Your task to perform on an android device: Show the shopping cart on walmart.com. Search for "macbook pro 13 inch" on walmart.com, select the first entry, and add it to the cart. Image 0: 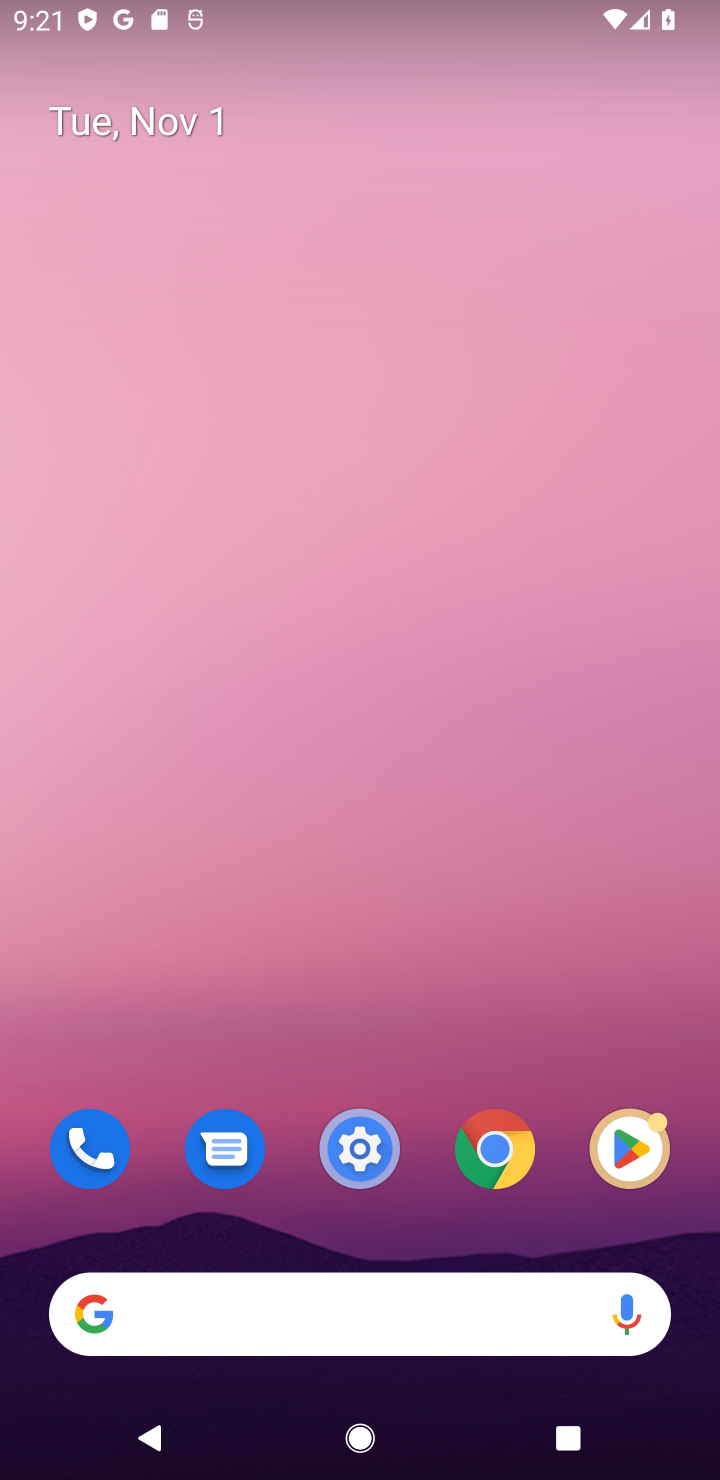
Step 0: press home button
Your task to perform on an android device: Show the shopping cart on walmart.com. Search for "macbook pro 13 inch" on walmart.com, select the first entry, and add it to the cart. Image 1: 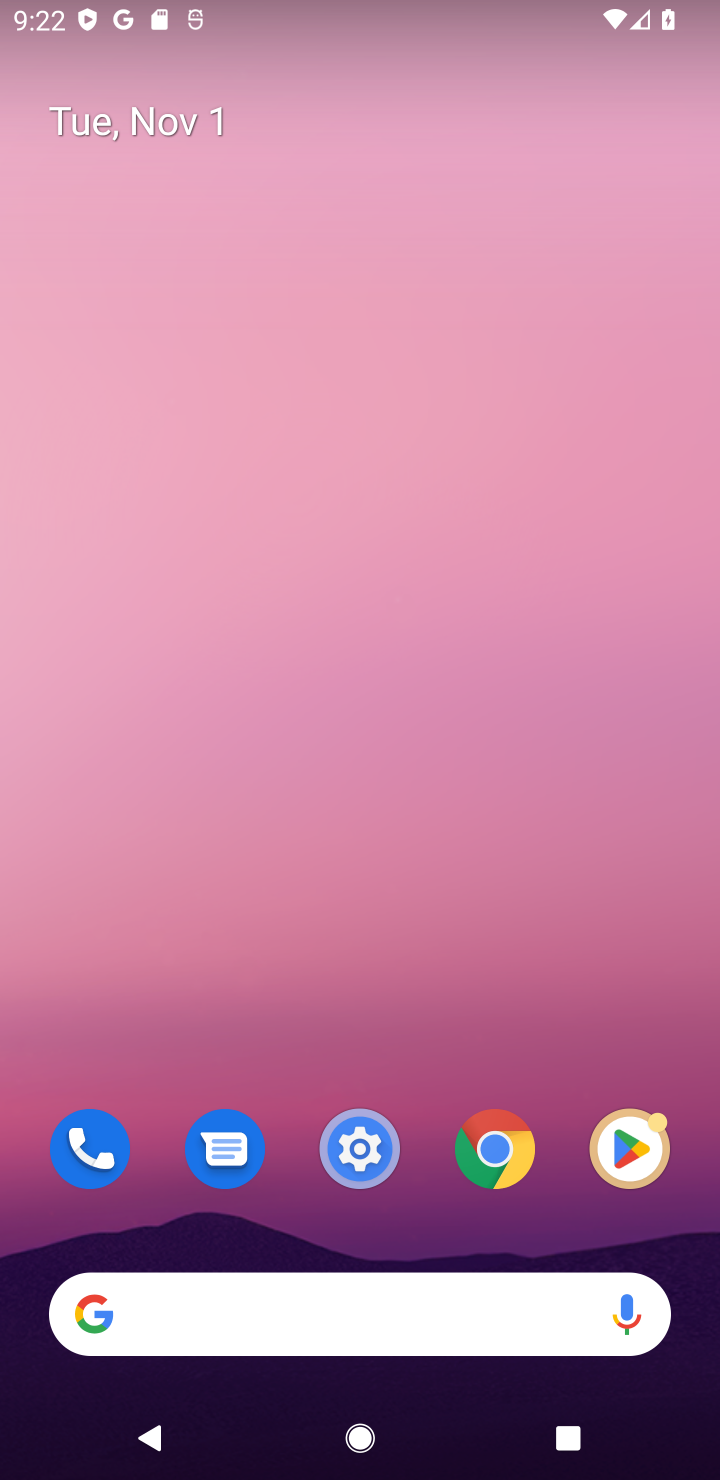
Step 1: click (130, 1314)
Your task to perform on an android device: Show the shopping cart on walmart.com. Search for "macbook pro 13 inch" on walmart.com, select the first entry, and add it to the cart. Image 2: 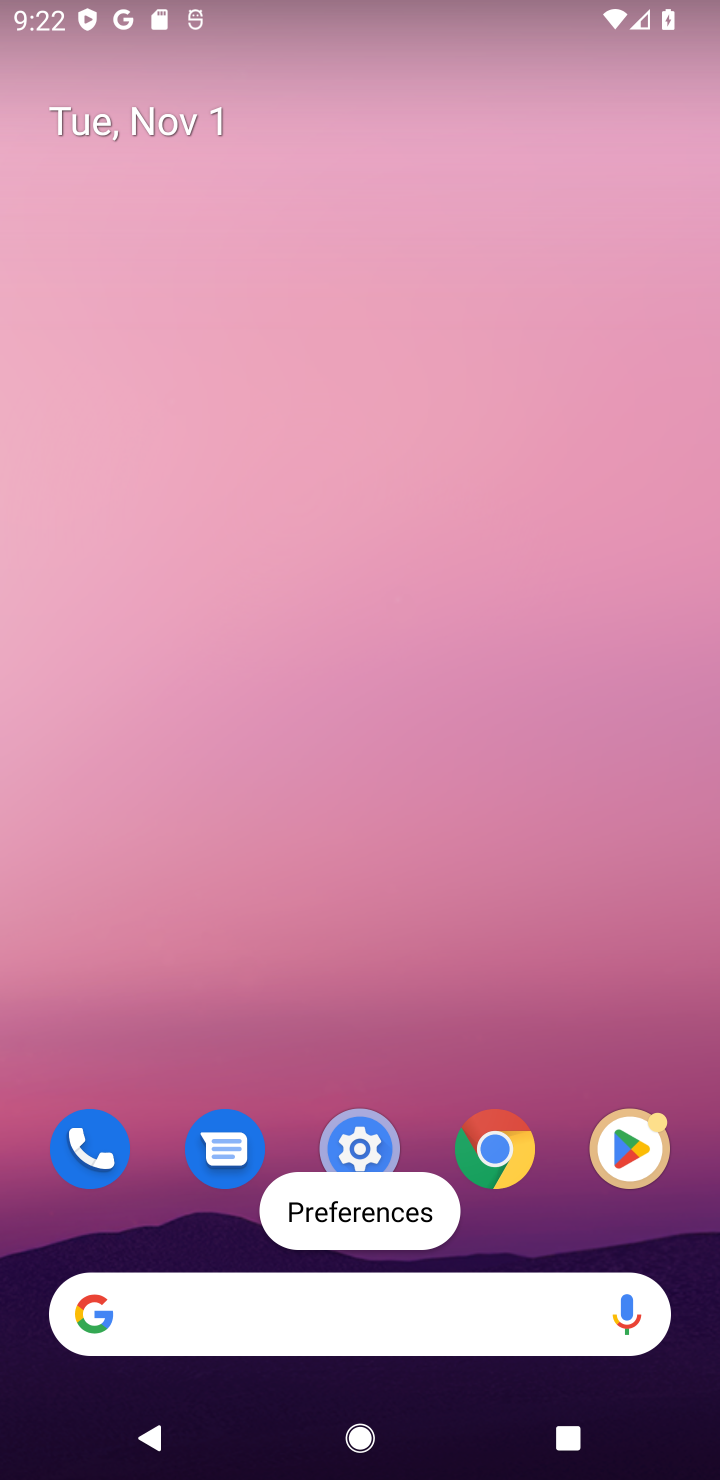
Step 2: click (130, 1314)
Your task to perform on an android device: Show the shopping cart on walmart.com. Search for "macbook pro 13 inch" on walmart.com, select the first entry, and add it to the cart. Image 3: 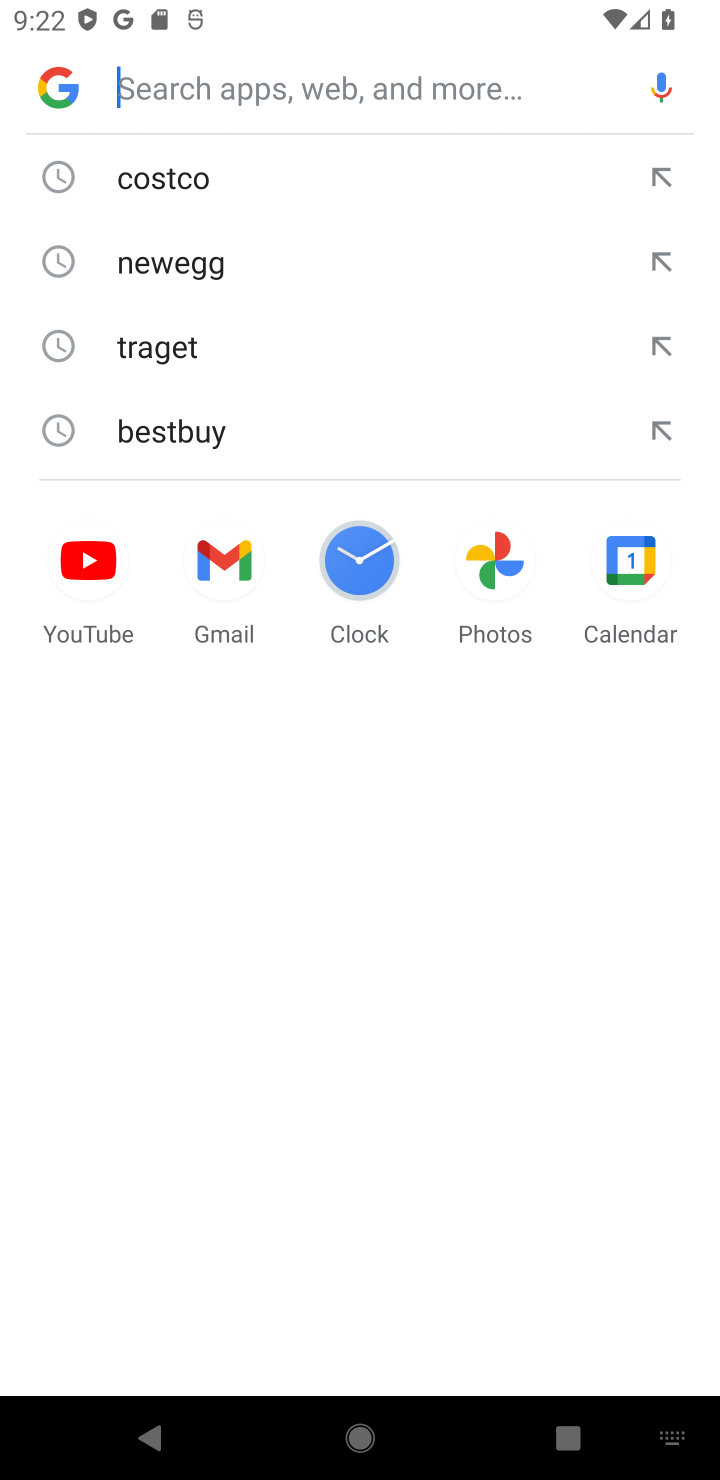
Step 3: type "walmart.com"
Your task to perform on an android device: Show the shopping cart on walmart.com. Search for "macbook pro 13 inch" on walmart.com, select the first entry, and add it to the cart. Image 4: 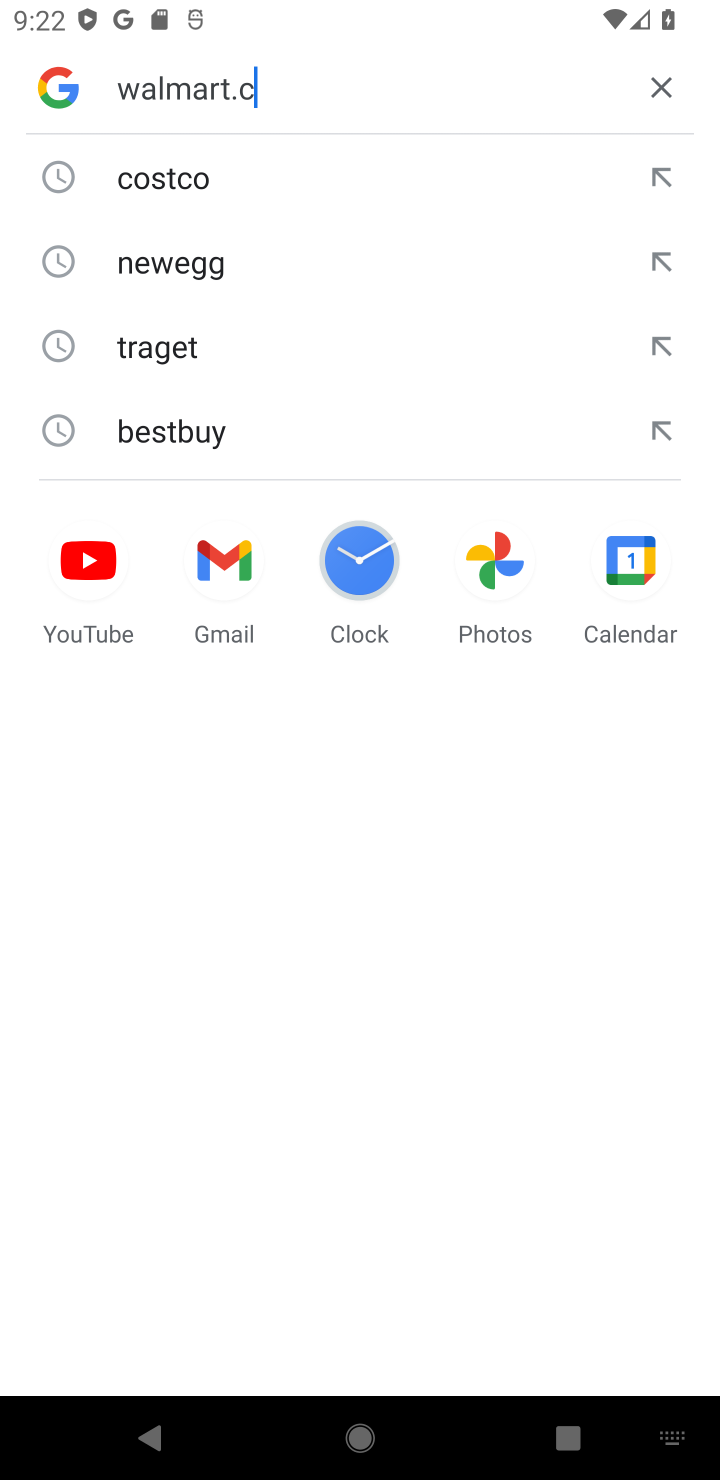
Step 4: press enter
Your task to perform on an android device: Show the shopping cart on walmart.com. Search for "macbook pro 13 inch" on walmart.com, select the first entry, and add it to the cart. Image 5: 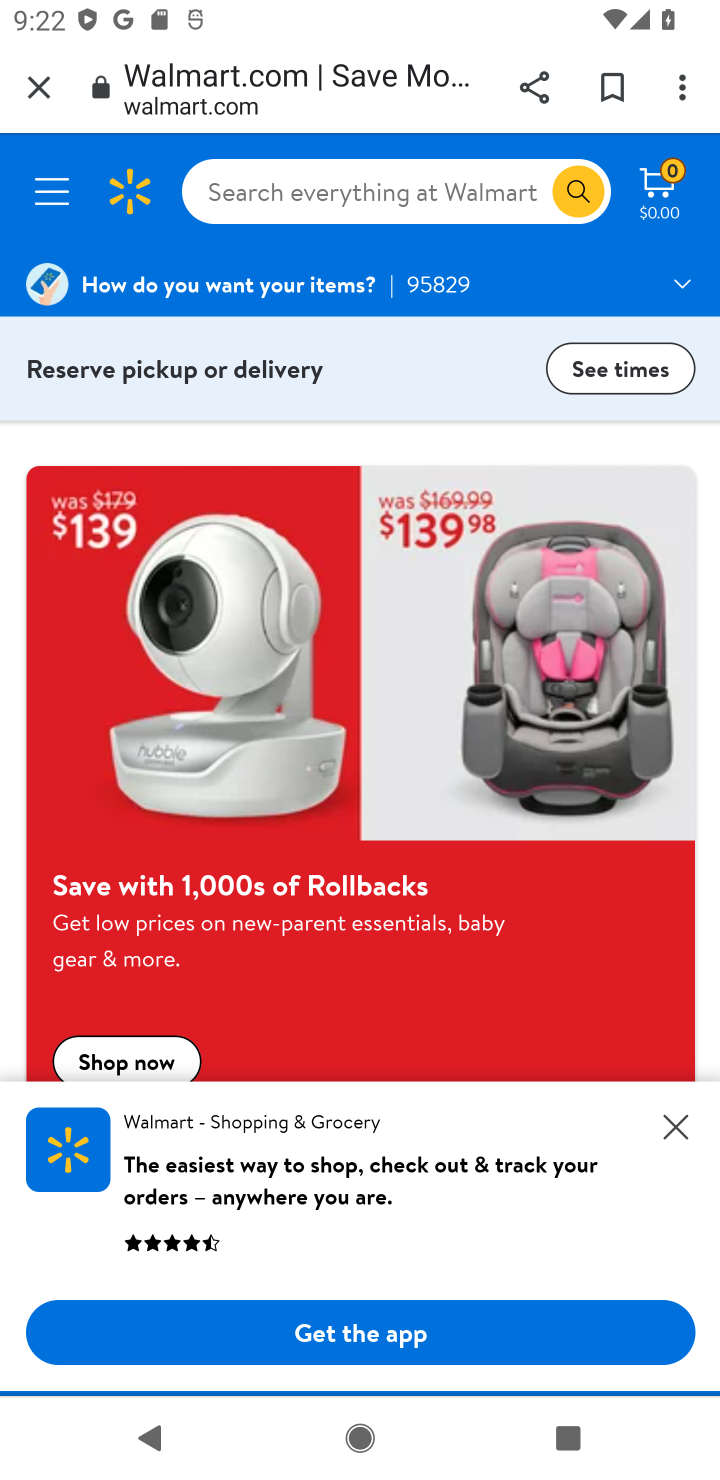
Step 5: click (660, 184)
Your task to perform on an android device: Show the shopping cart on walmart.com. Search for "macbook pro 13 inch" on walmart.com, select the first entry, and add it to the cart. Image 6: 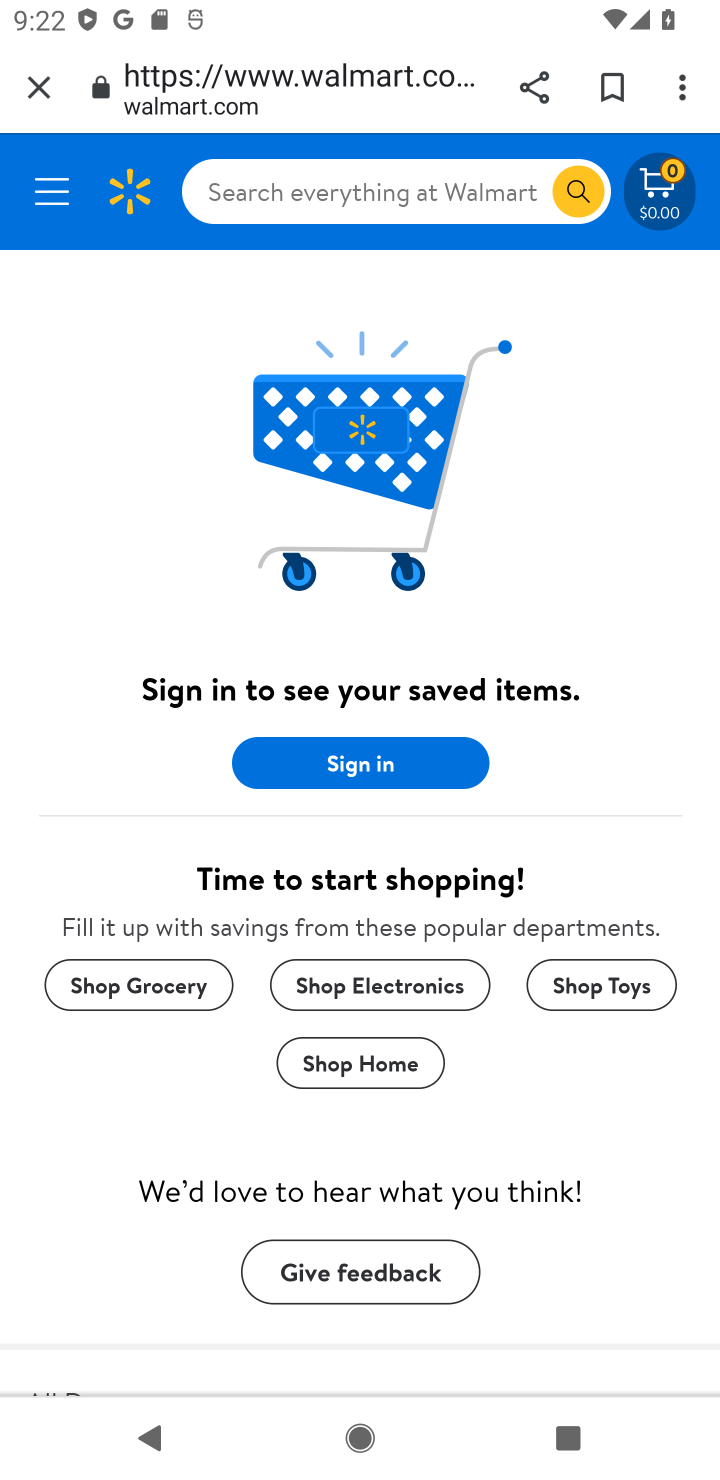
Step 6: click (247, 191)
Your task to perform on an android device: Show the shopping cart on walmart.com. Search for "macbook pro 13 inch" on walmart.com, select the first entry, and add it to the cart. Image 7: 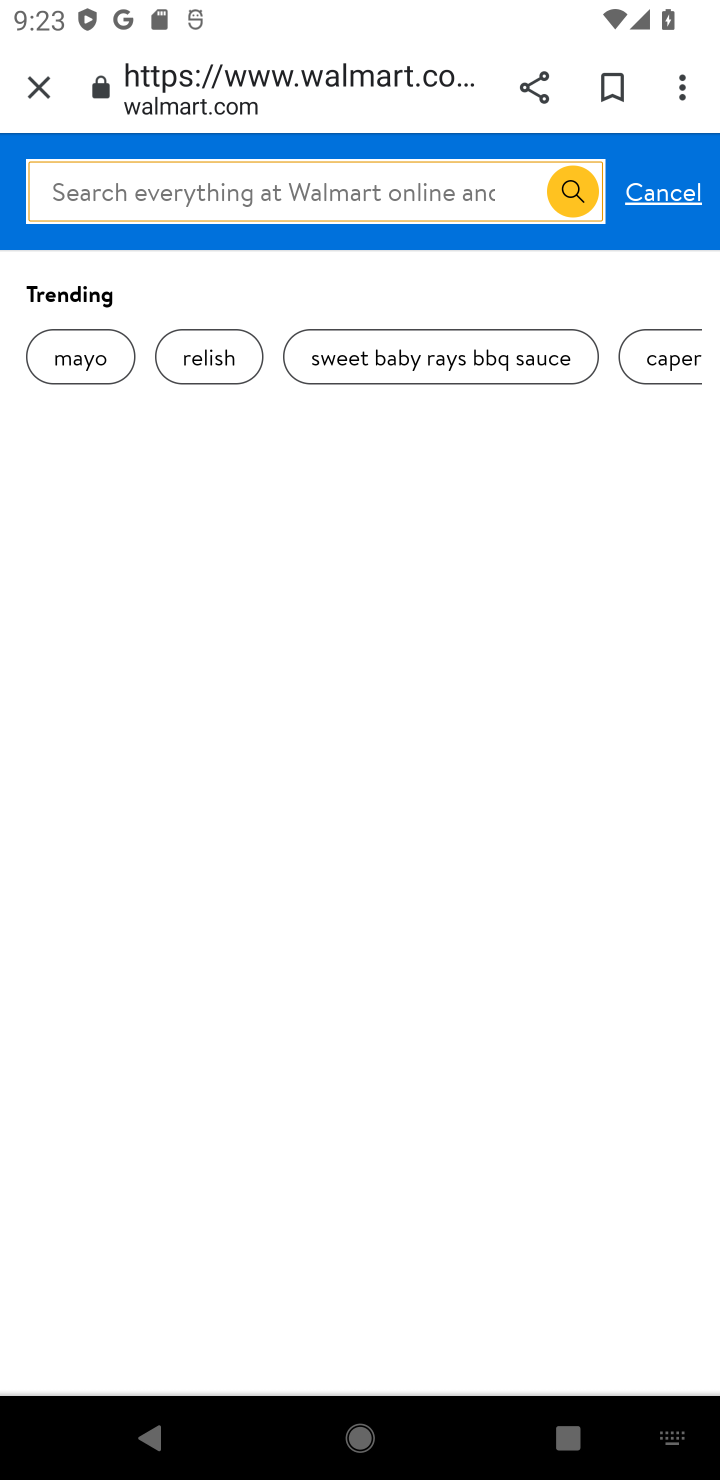
Step 7: type "macbook pro 13 inch"
Your task to perform on an android device: Show the shopping cart on walmart.com. Search for "macbook pro 13 inch" on walmart.com, select the first entry, and add it to the cart. Image 8: 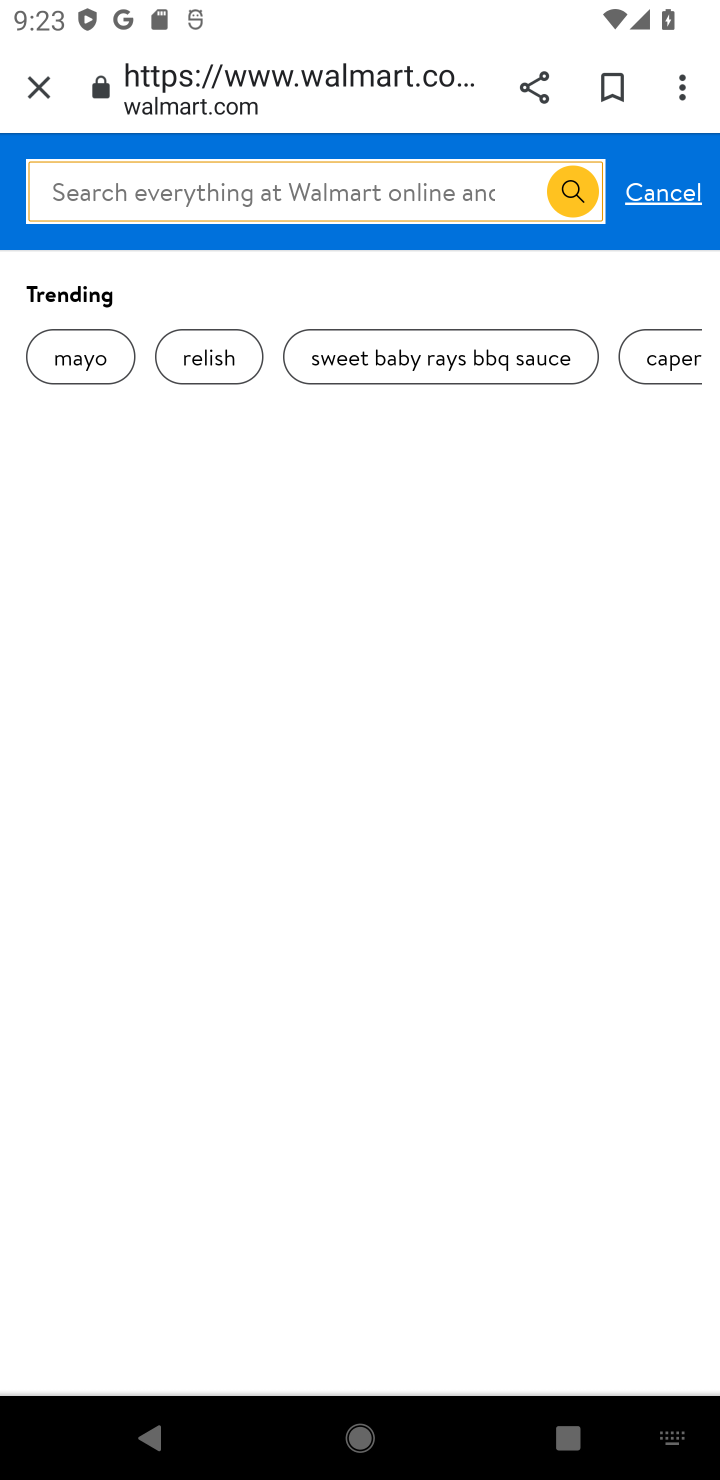
Step 8: press enter
Your task to perform on an android device: Show the shopping cart on walmart.com. Search for "macbook pro 13 inch" on walmart.com, select the first entry, and add it to the cart. Image 9: 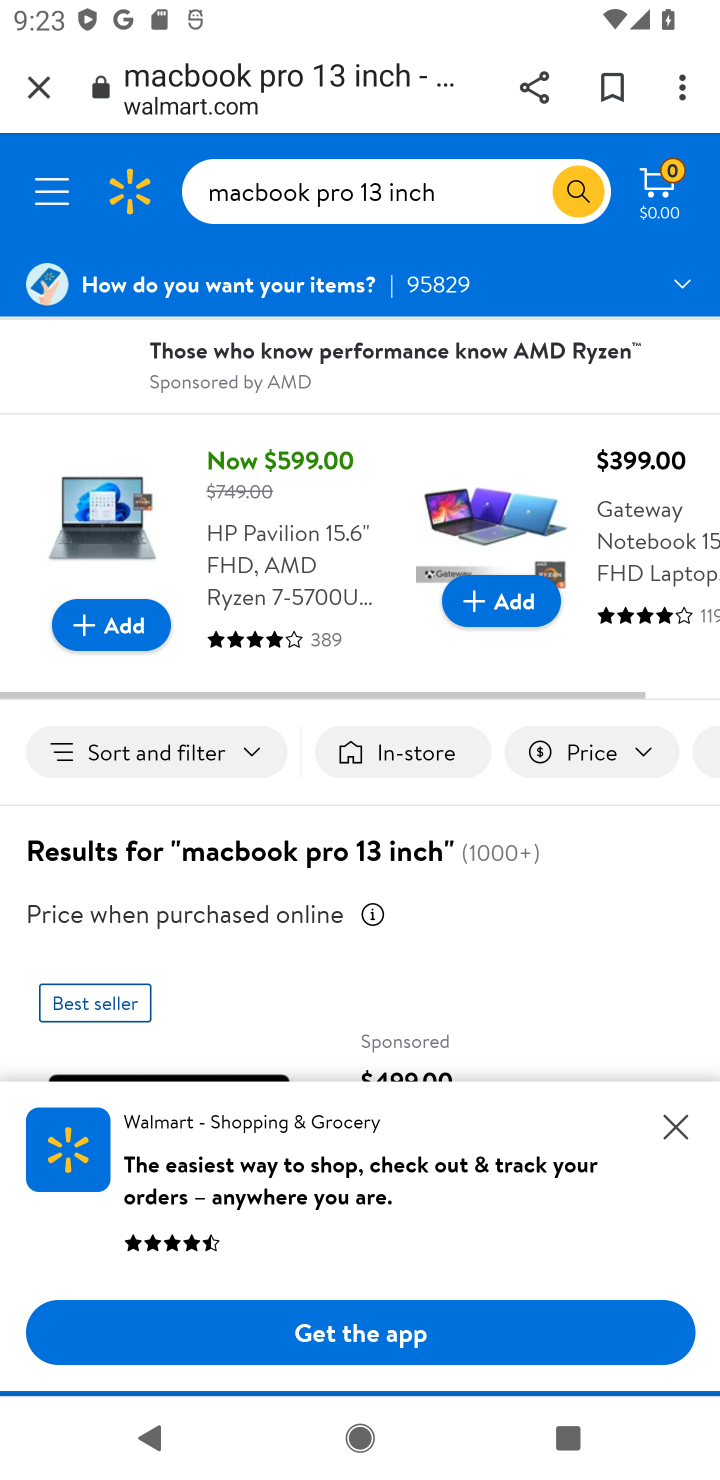
Step 9: click (677, 1137)
Your task to perform on an android device: Show the shopping cart on walmart.com. Search for "macbook pro 13 inch" on walmart.com, select the first entry, and add it to the cart. Image 10: 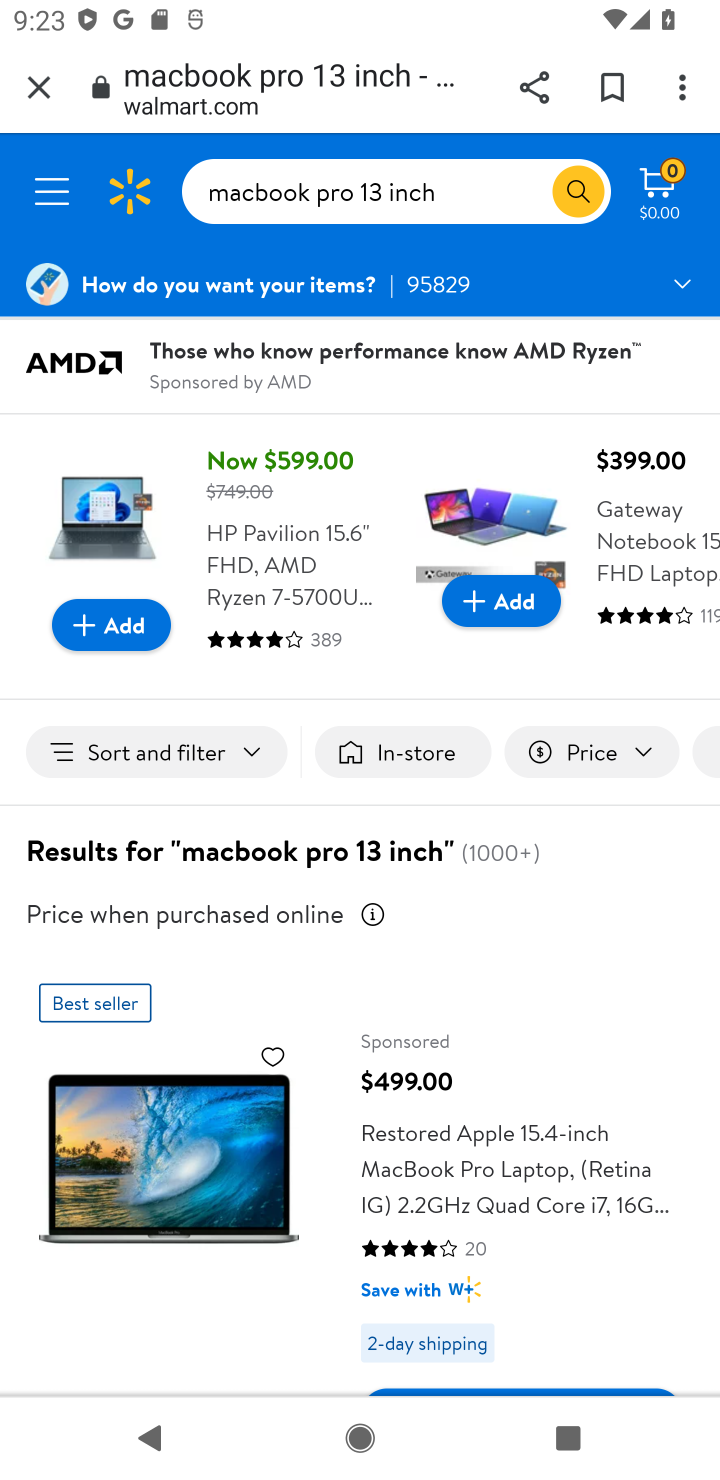
Step 10: drag from (568, 1200) to (524, 645)
Your task to perform on an android device: Show the shopping cart on walmart.com. Search for "macbook pro 13 inch" on walmart.com, select the first entry, and add it to the cart. Image 11: 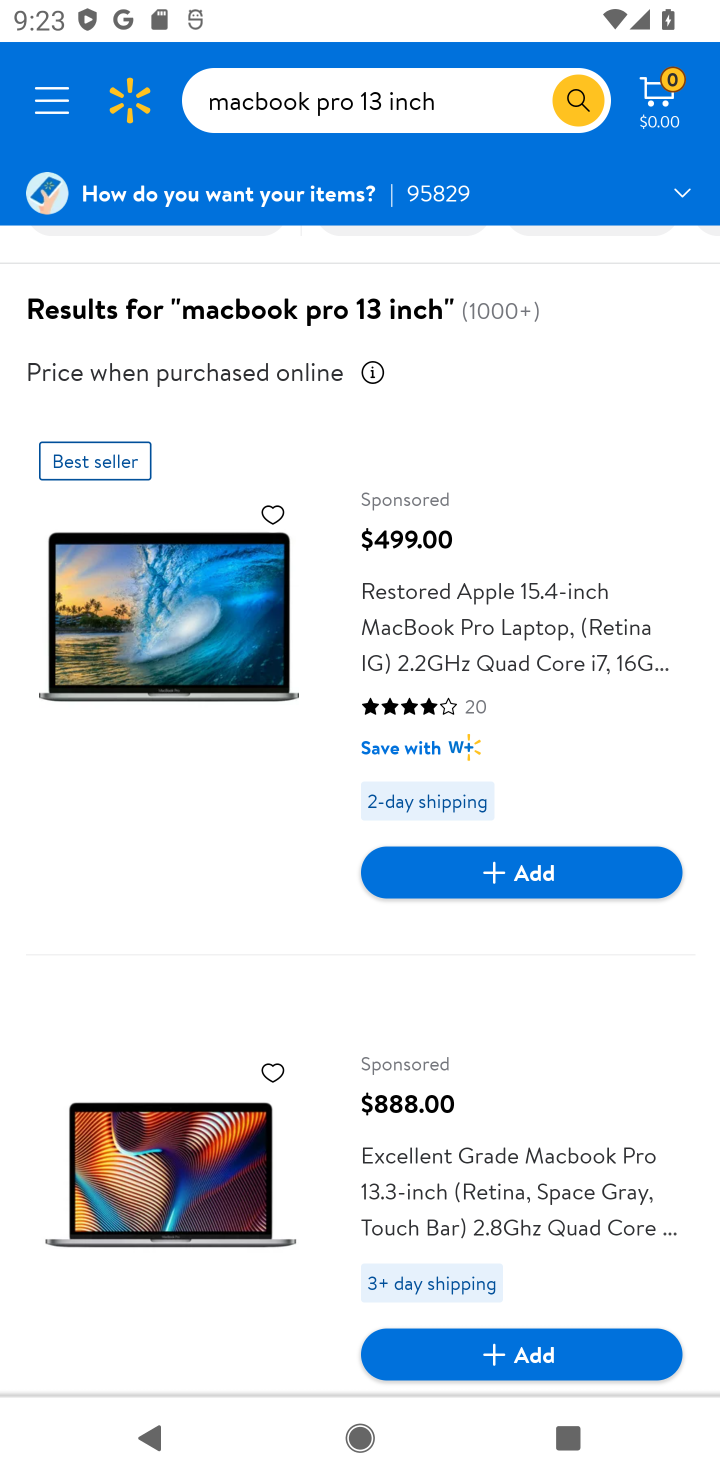
Step 11: drag from (468, 1140) to (486, 502)
Your task to perform on an android device: Show the shopping cart on walmart.com. Search for "macbook pro 13 inch" on walmart.com, select the first entry, and add it to the cart. Image 12: 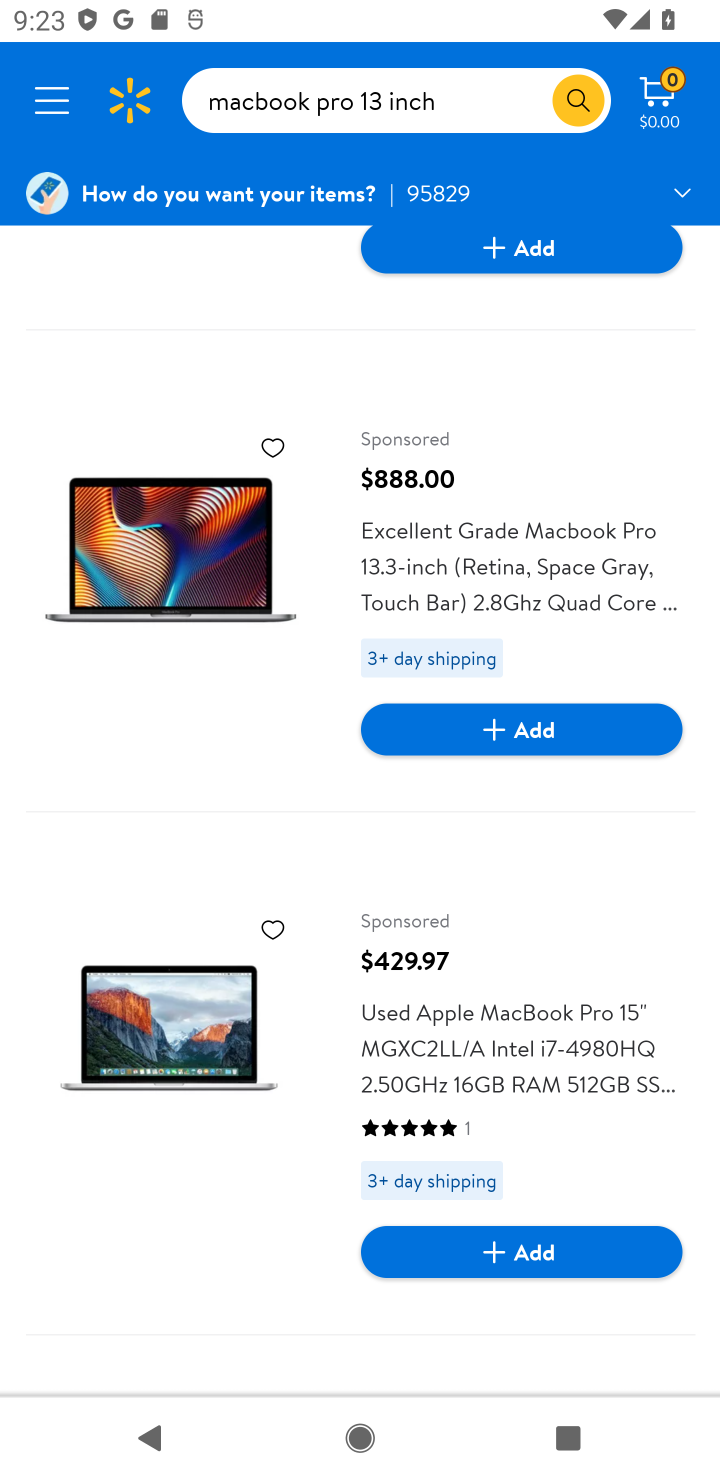
Step 12: drag from (494, 1040) to (504, 591)
Your task to perform on an android device: Show the shopping cart on walmart.com. Search for "macbook pro 13 inch" on walmart.com, select the first entry, and add it to the cart. Image 13: 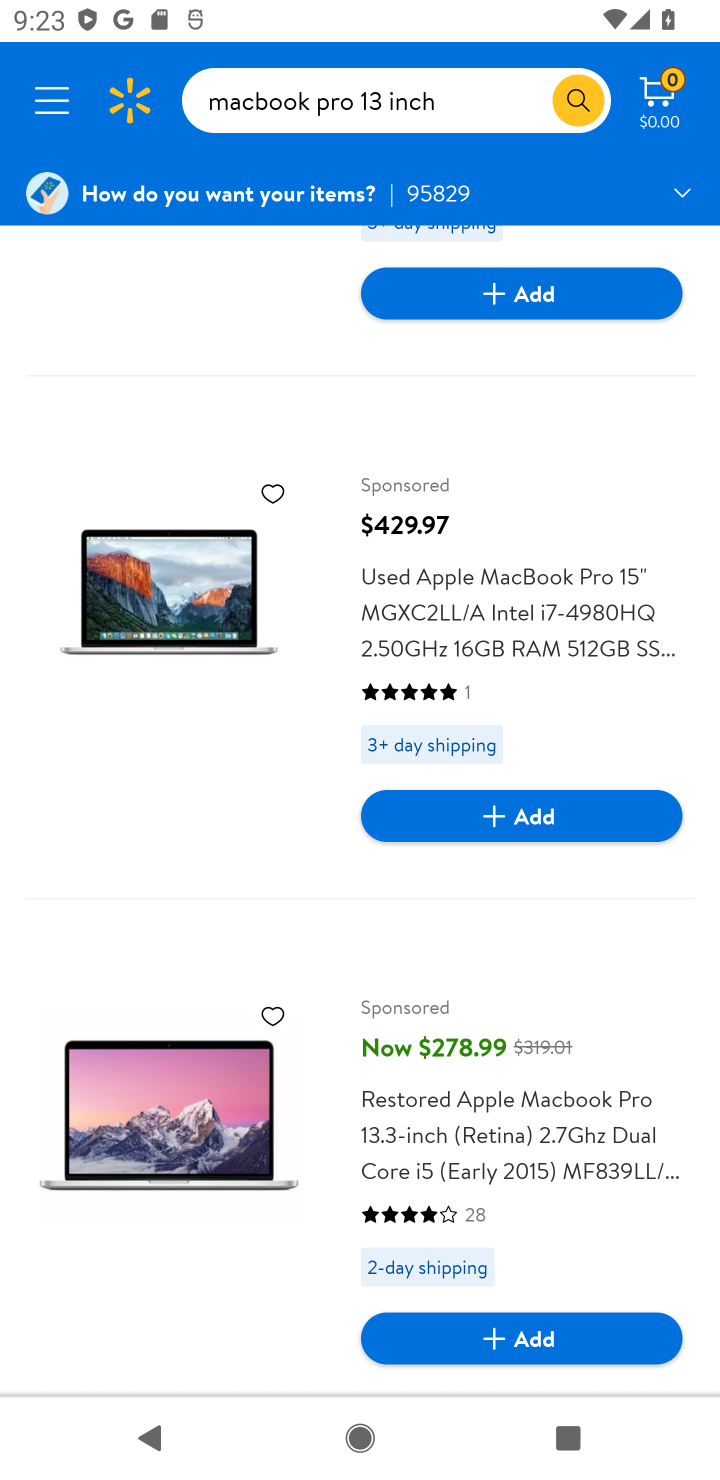
Step 13: click (506, 1343)
Your task to perform on an android device: Show the shopping cart on walmart.com. Search for "macbook pro 13 inch" on walmart.com, select the first entry, and add it to the cart. Image 14: 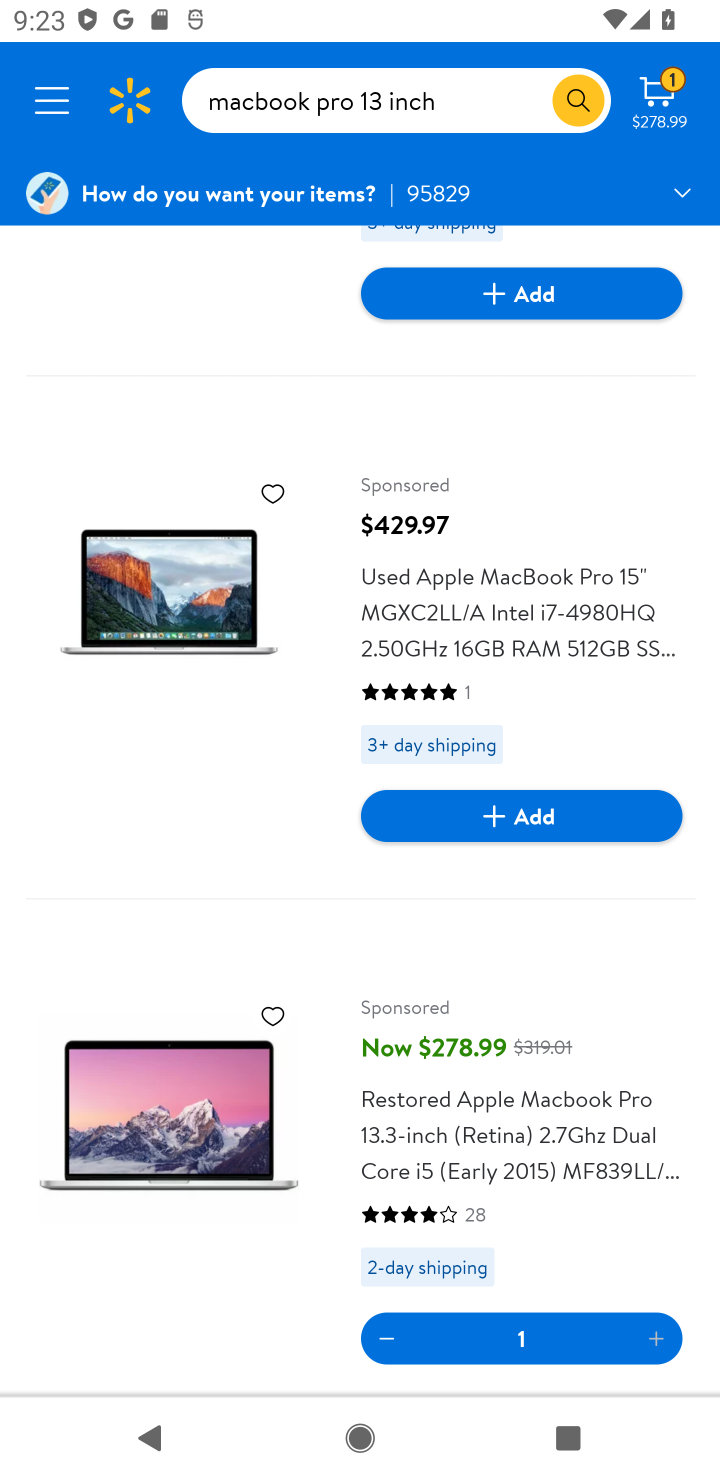
Step 14: task complete